Your task to perform on an android device: What is the news today? Image 0: 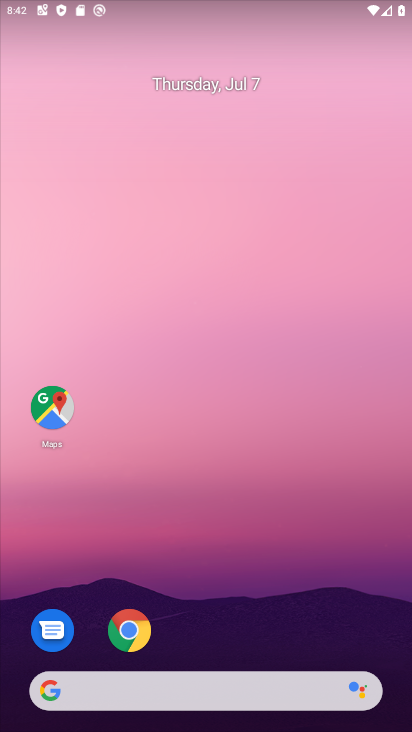
Step 0: drag from (184, 643) to (259, 318)
Your task to perform on an android device: What is the news today? Image 1: 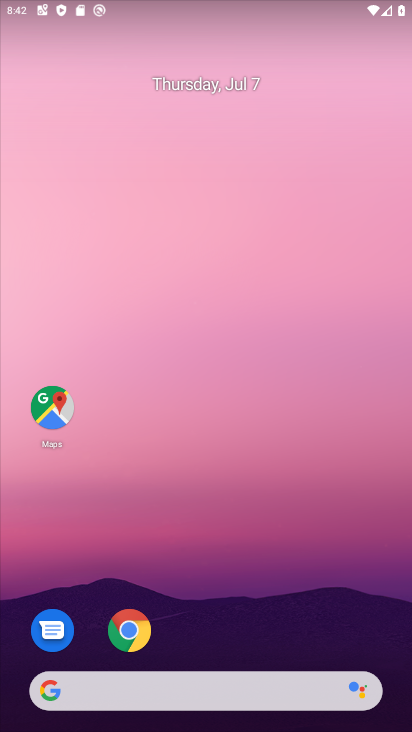
Step 1: drag from (198, 633) to (143, 118)
Your task to perform on an android device: What is the news today? Image 2: 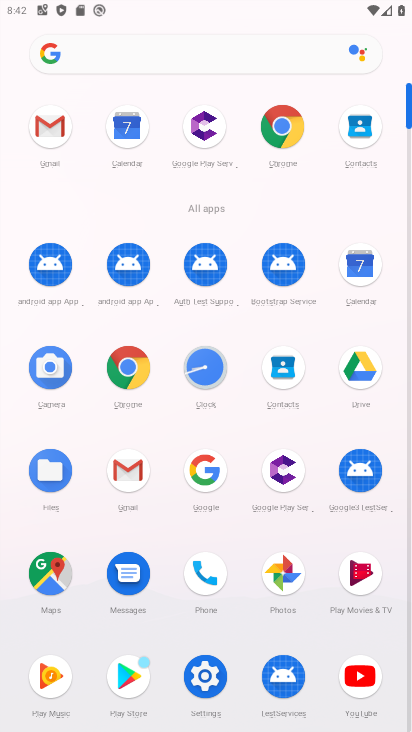
Step 2: click (181, 60)
Your task to perform on an android device: What is the news today? Image 3: 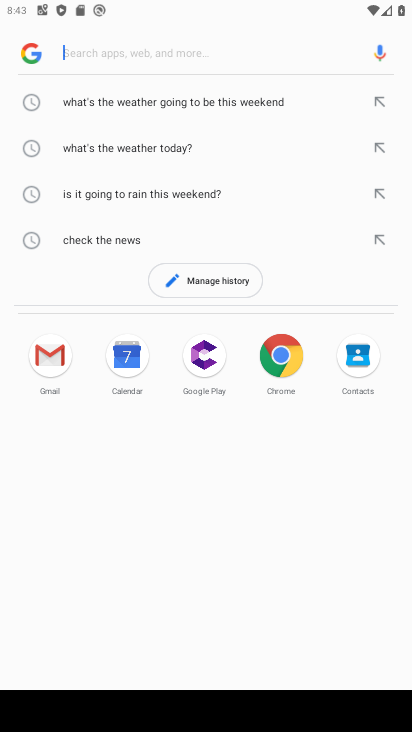
Step 3: drag from (231, 594) to (199, 367)
Your task to perform on an android device: What is the news today? Image 4: 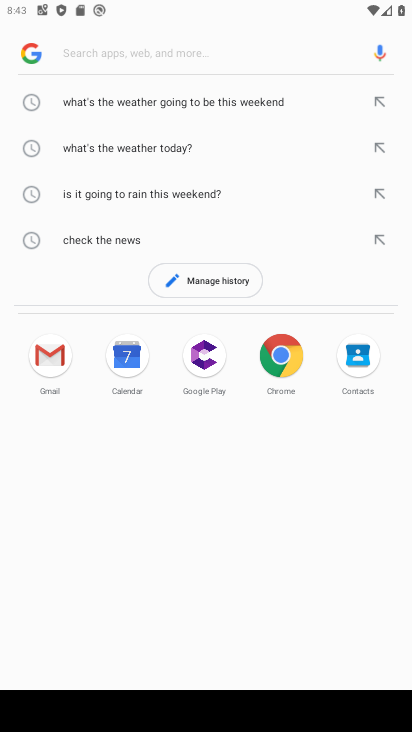
Step 4: drag from (137, 608) to (214, 361)
Your task to perform on an android device: What is the news today? Image 5: 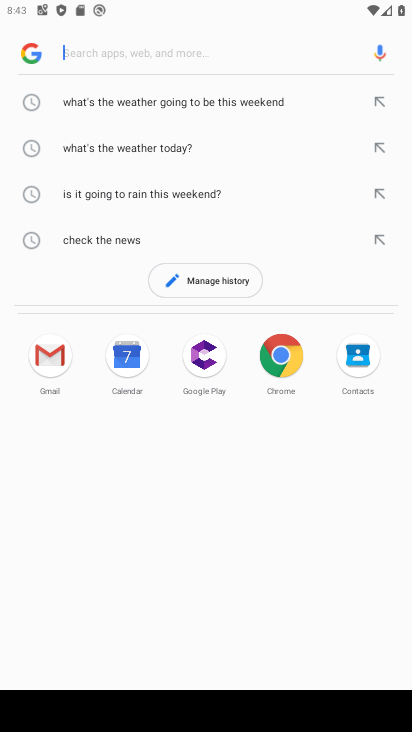
Step 5: type "news today?"
Your task to perform on an android device: What is the news today? Image 6: 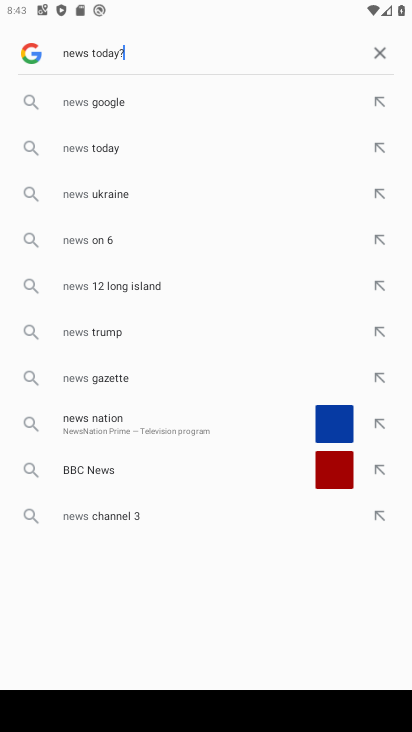
Step 6: type ""
Your task to perform on an android device: What is the news today? Image 7: 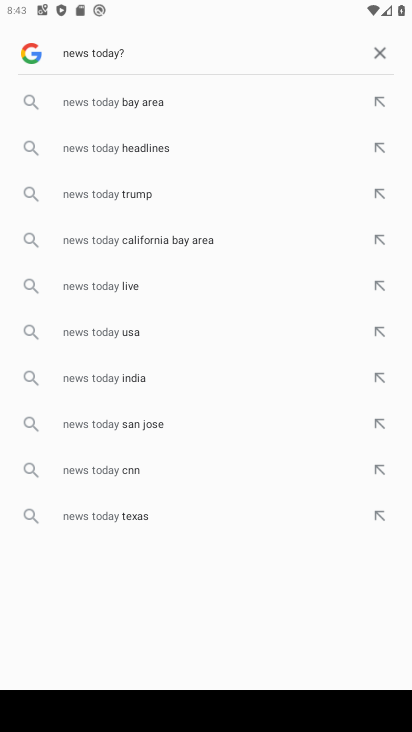
Step 7: click (111, 458)
Your task to perform on an android device: What is the news today? Image 8: 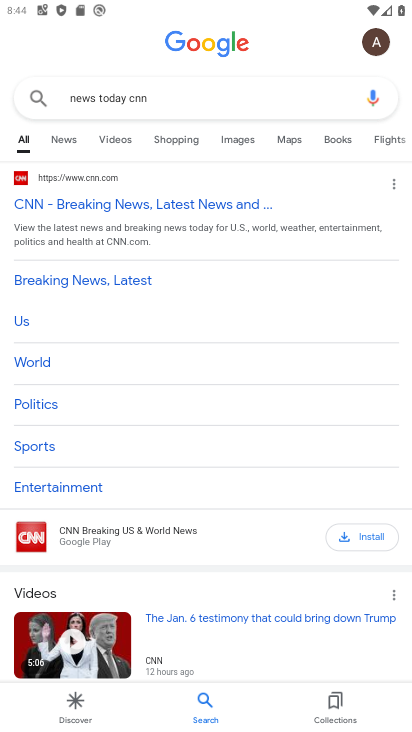
Step 8: drag from (158, 553) to (374, 85)
Your task to perform on an android device: What is the news today? Image 9: 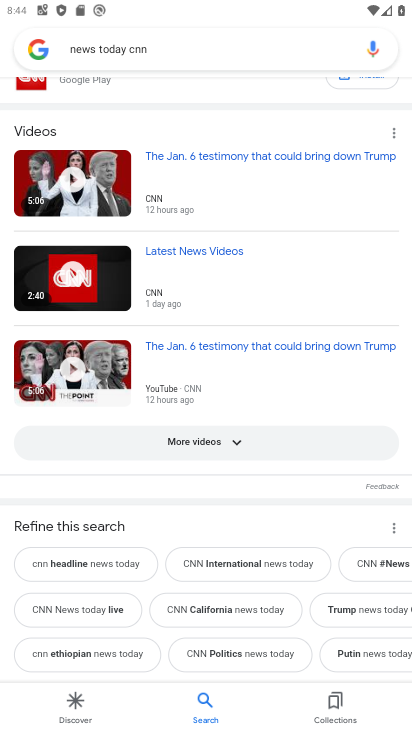
Step 9: drag from (258, 151) to (246, 700)
Your task to perform on an android device: What is the news today? Image 10: 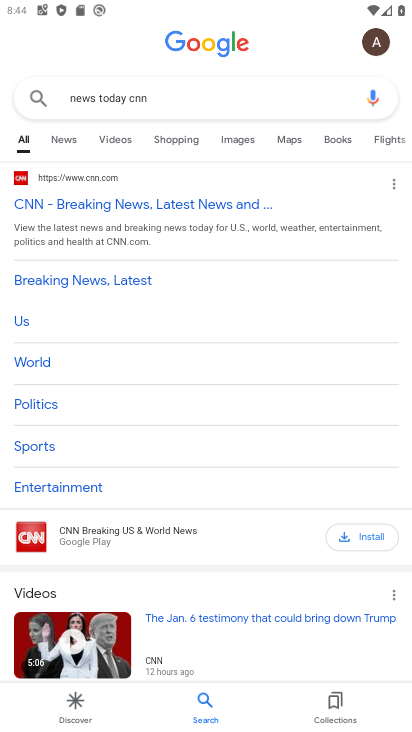
Step 10: drag from (239, 246) to (219, 641)
Your task to perform on an android device: What is the news today? Image 11: 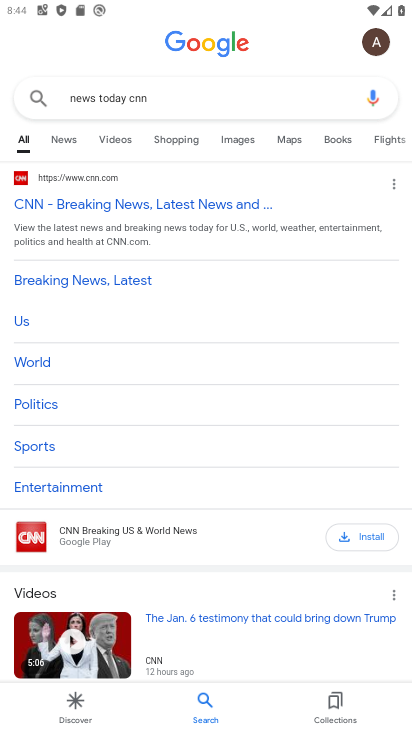
Step 11: drag from (201, 315) to (213, 717)
Your task to perform on an android device: What is the news today? Image 12: 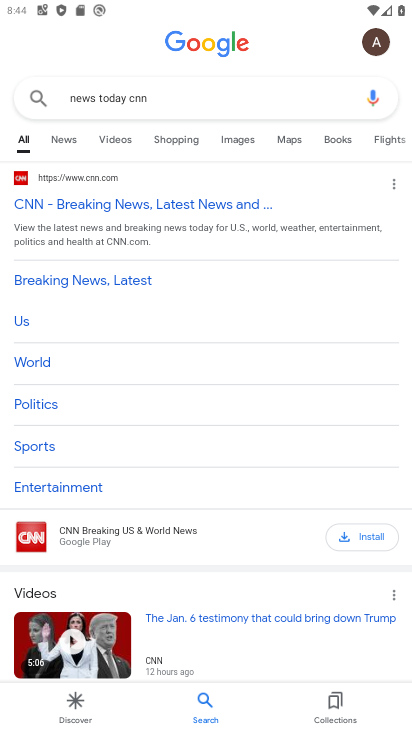
Step 12: drag from (172, 304) to (208, 691)
Your task to perform on an android device: What is the news today? Image 13: 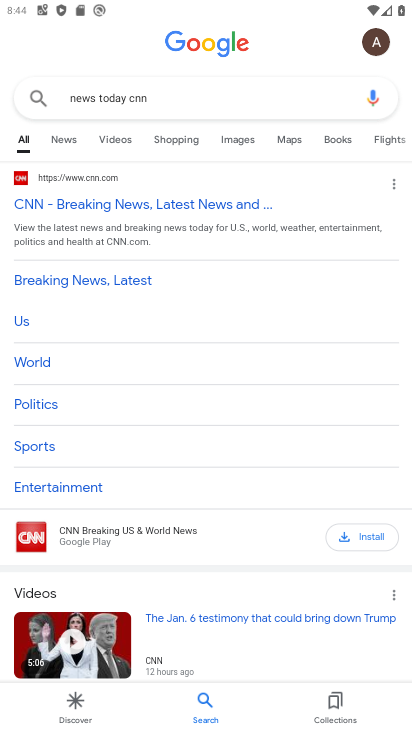
Step 13: click (112, 203)
Your task to perform on an android device: What is the news today? Image 14: 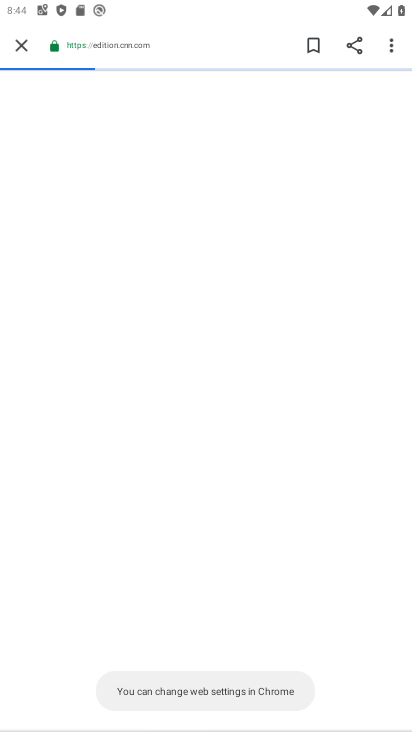
Step 14: task complete